Your task to perform on an android device: Open Chrome and go to the settings page Image 0: 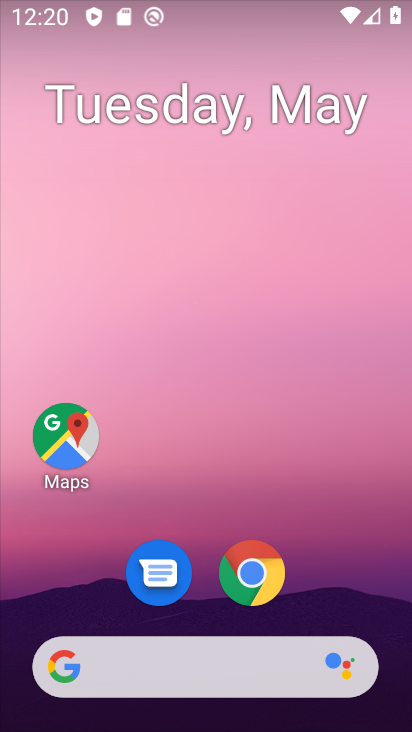
Step 0: drag from (368, 567) to (269, 144)
Your task to perform on an android device: Open Chrome and go to the settings page Image 1: 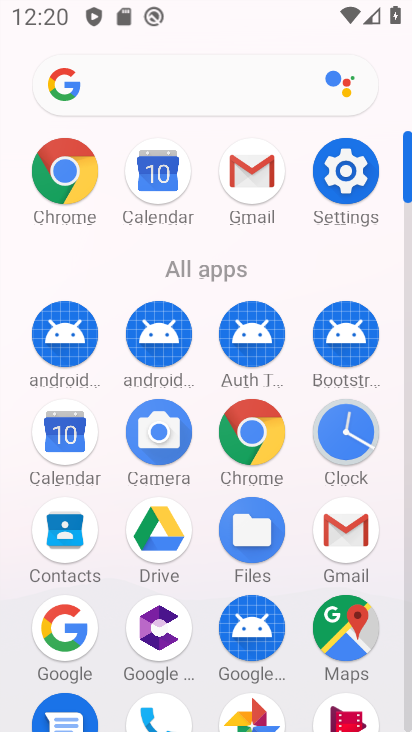
Step 1: click (89, 201)
Your task to perform on an android device: Open Chrome and go to the settings page Image 2: 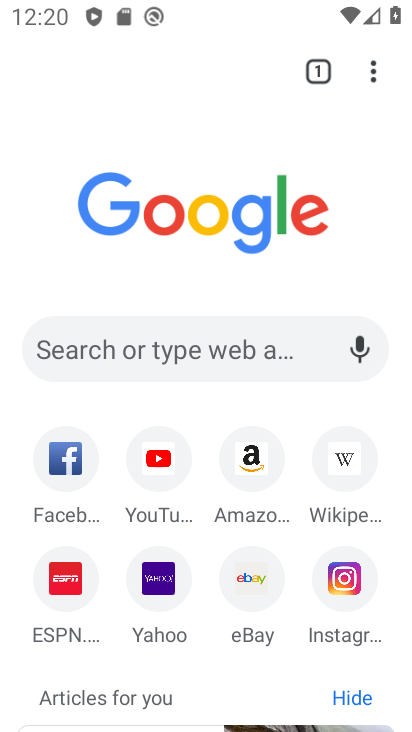
Step 2: task complete